Your task to perform on an android device: change notifications settings Image 0: 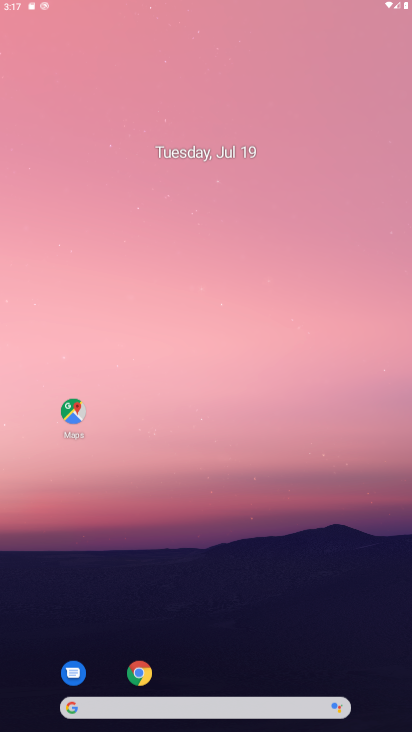
Step 0: click (285, 303)
Your task to perform on an android device: change notifications settings Image 1: 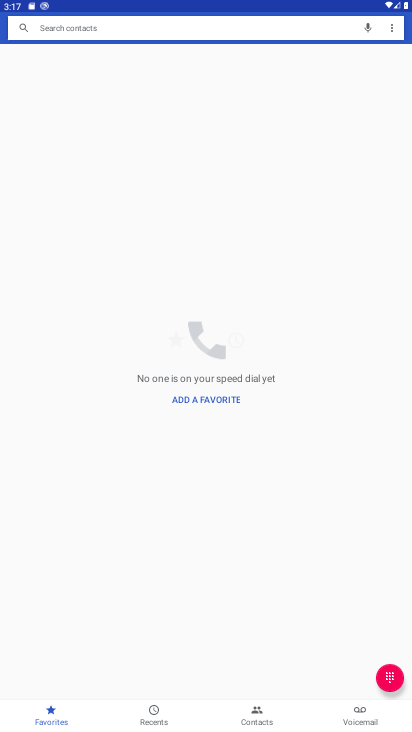
Step 1: press home button
Your task to perform on an android device: change notifications settings Image 2: 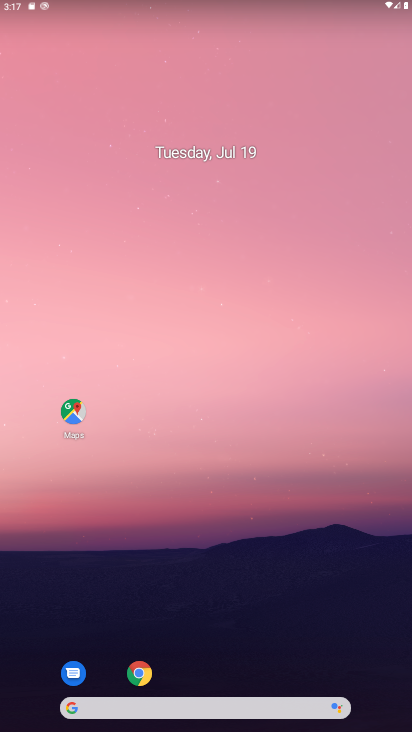
Step 2: drag from (101, 631) to (133, 116)
Your task to perform on an android device: change notifications settings Image 3: 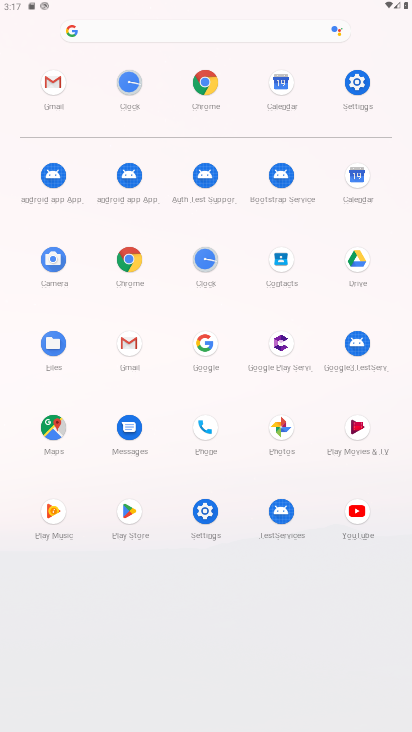
Step 3: click (204, 531)
Your task to perform on an android device: change notifications settings Image 4: 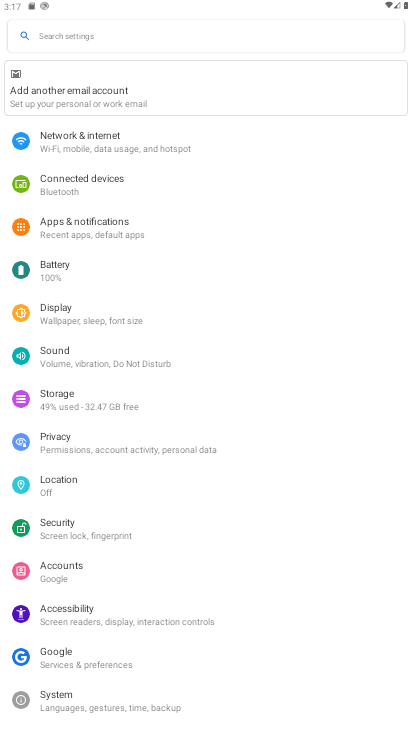
Step 4: click (124, 239)
Your task to perform on an android device: change notifications settings Image 5: 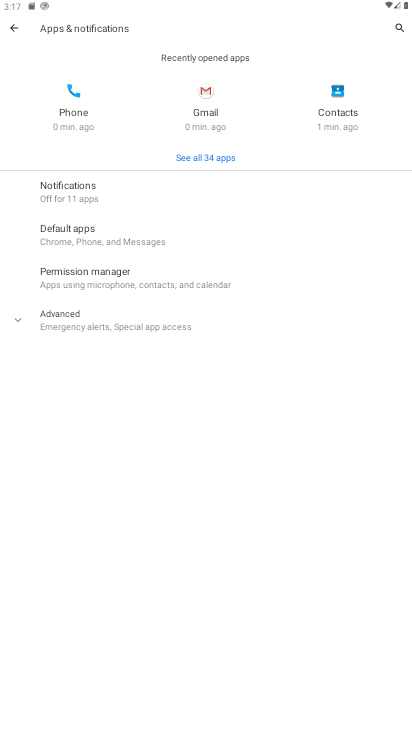
Step 5: click (64, 184)
Your task to perform on an android device: change notifications settings Image 6: 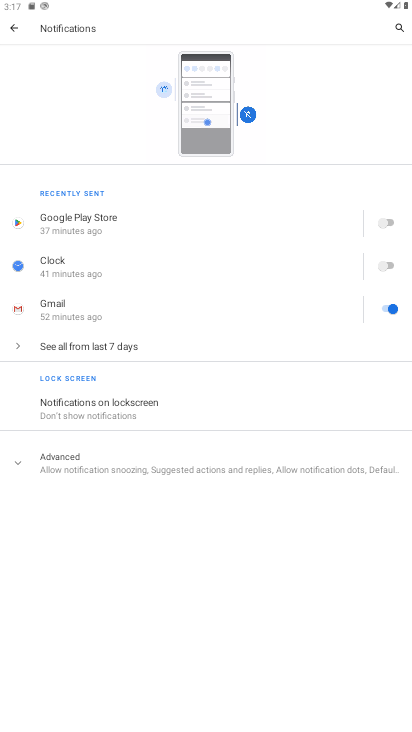
Step 6: click (102, 344)
Your task to perform on an android device: change notifications settings Image 7: 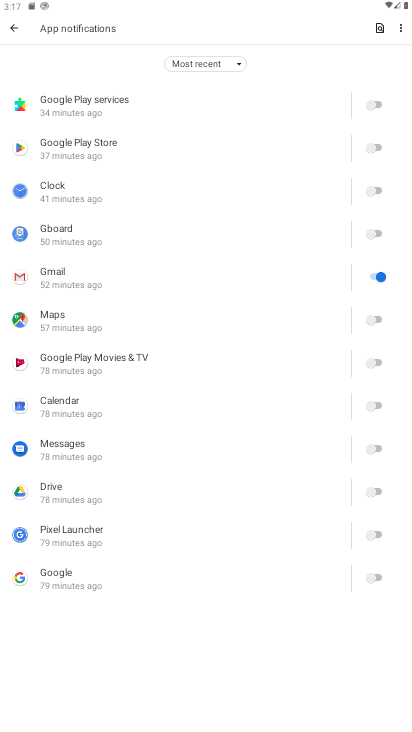
Step 7: click (380, 92)
Your task to perform on an android device: change notifications settings Image 8: 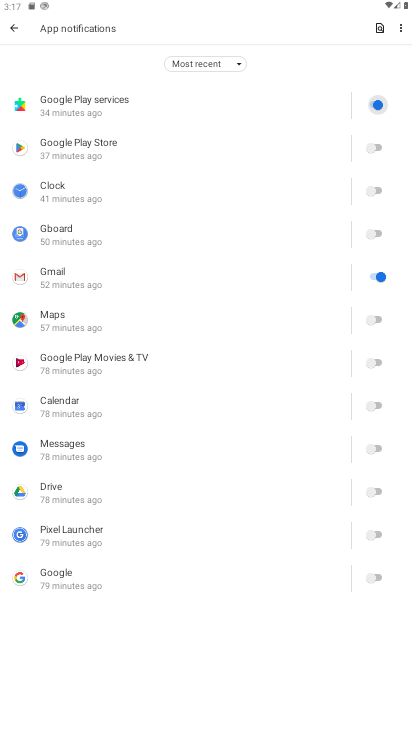
Step 8: click (388, 148)
Your task to perform on an android device: change notifications settings Image 9: 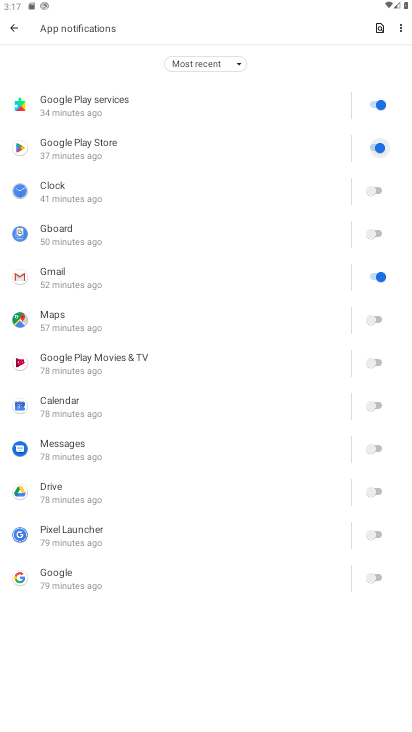
Step 9: click (382, 188)
Your task to perform on an android device: change notifications settings Image 10: 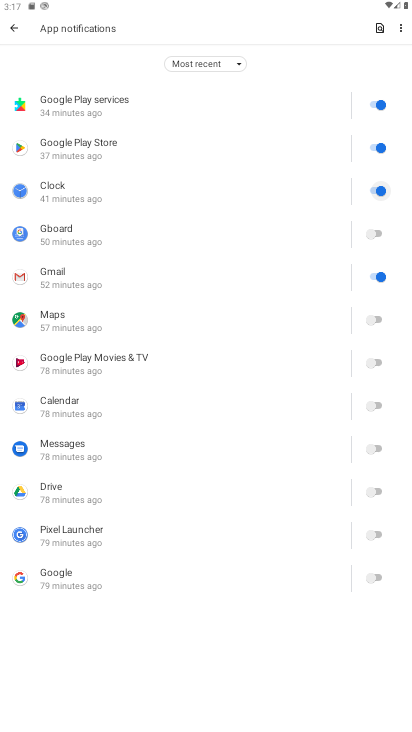
Step 10: click (379, 232)
Your task to perform on an android device: change notifications settings Image 11: 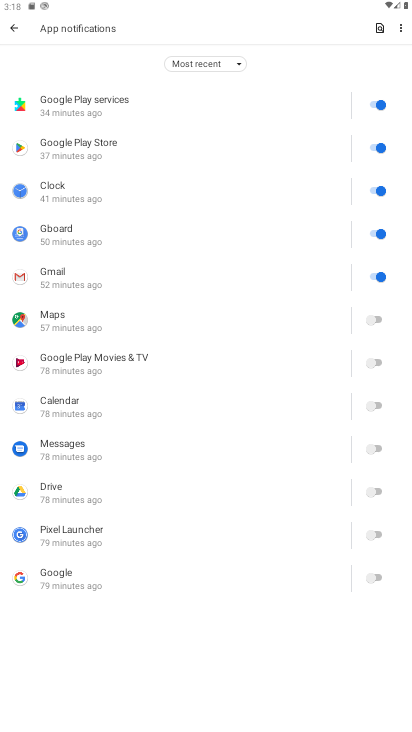
Step 11: click (384, 276)
Your task to perform on an android device: change notifications settings Image 12: 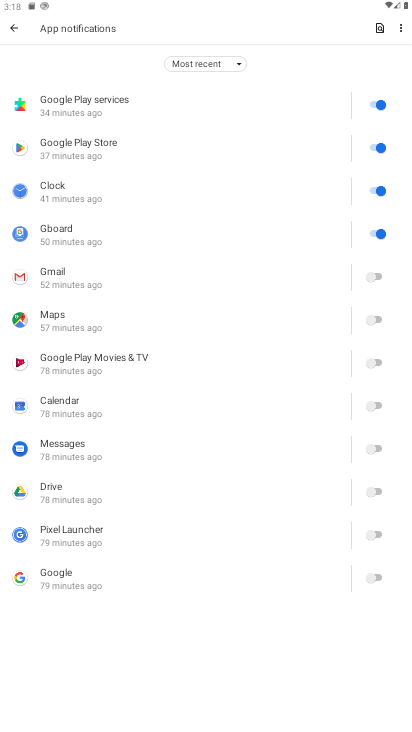
Step 12: click (387, 320)
Your task to perform on an android device: change notifications settings Image 13: 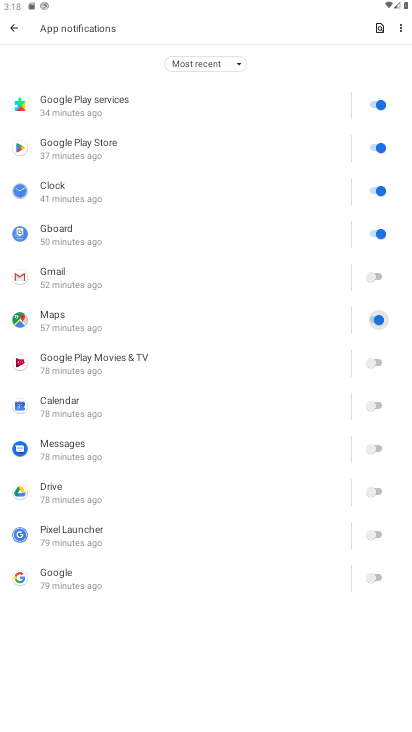
Step 13: click (387, 355)
Your task to perform on an android device: change notifications settings Image 14: 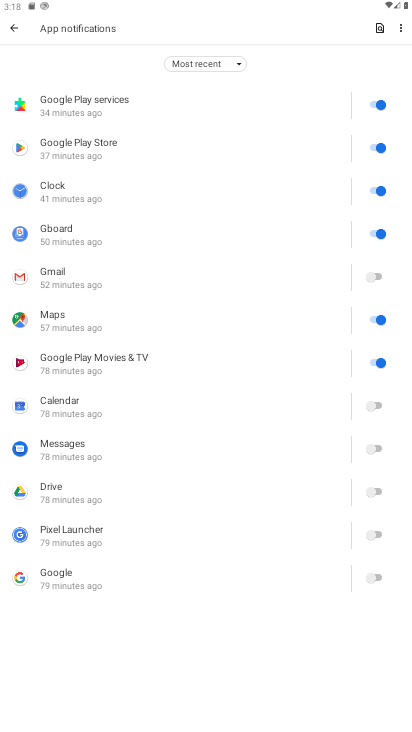
Step 14: click (375, 412)
Your task to perform on an android device: change notifications settings Image 15: 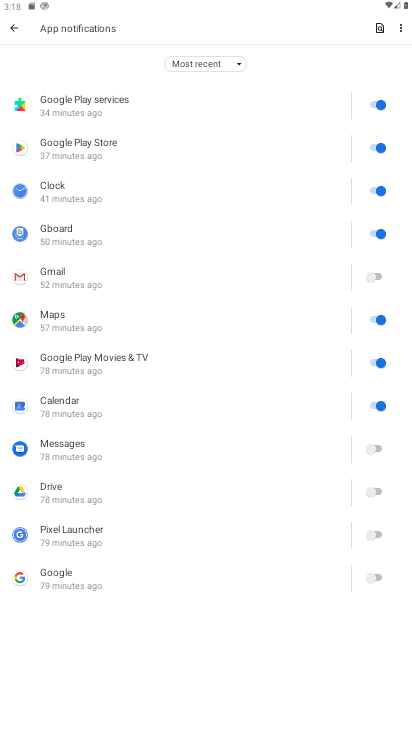
Step 15: click (373, 456)
Your task to perform on an android device: change notifications settings Image 16: 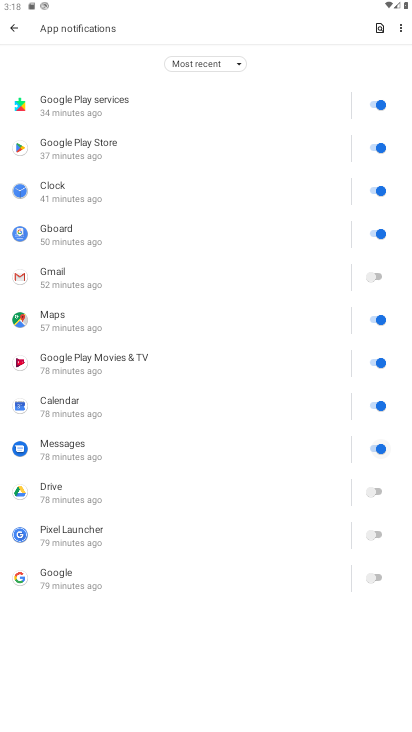
Step 16: click (377, 487)
Your task to perform on an android device: change notifications settings Image 17: 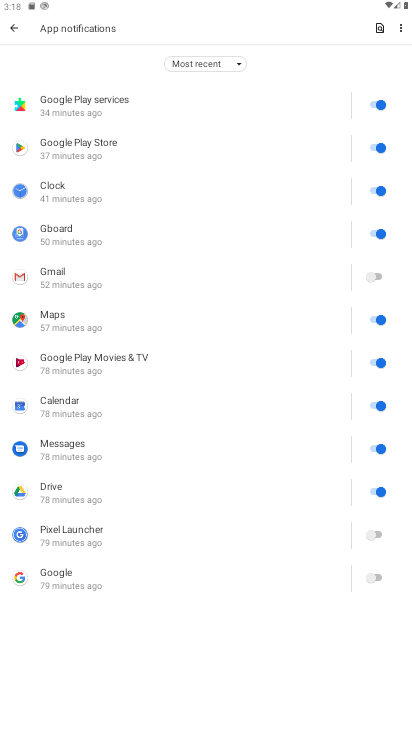
Step 17: click (383, 539)
Your task to perform on an android device: change notifications settings Image 18: 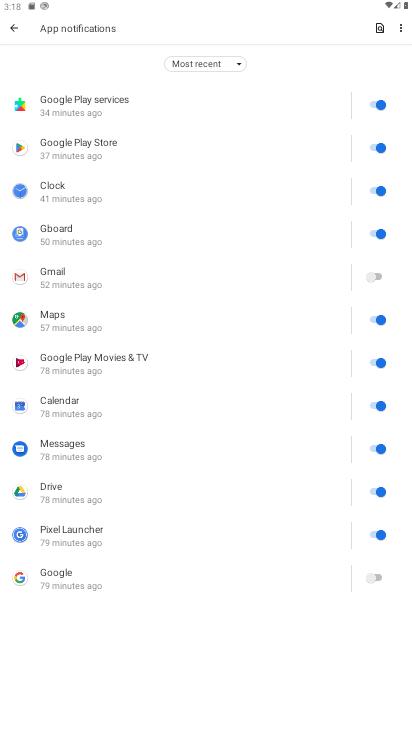
Step 18: click (390, 568)
Your task to perform on an android device: change notifications settings Image 19: 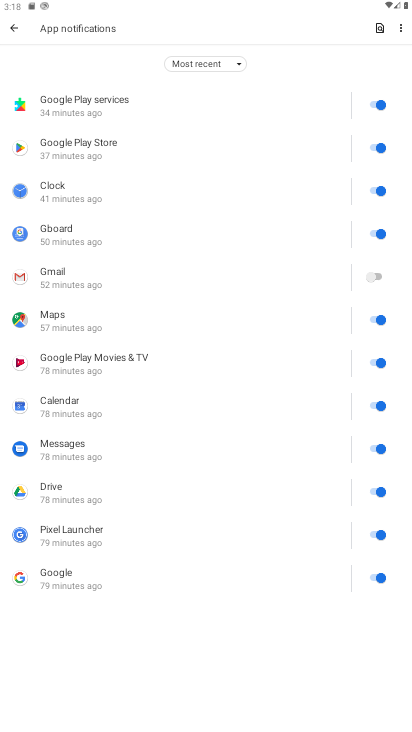
Step 19: task complete